Your task to perform on an android device: Open Google Maps and go to "Timeline" Image 0: 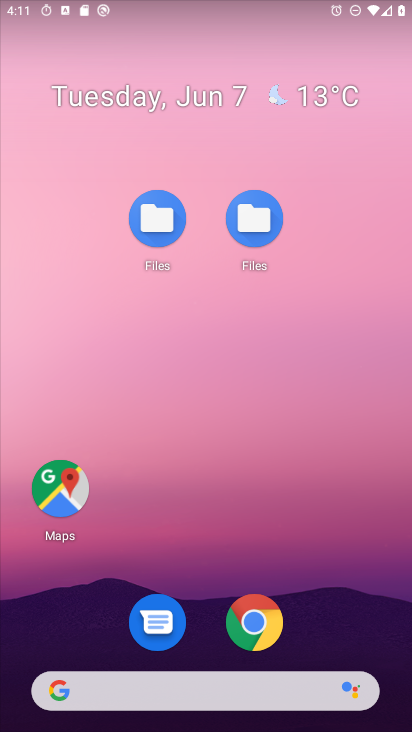
Step 0: click (47, 496)
Your task to perform on an android device: Open Google Maps and go to "Timeline" Image 1: 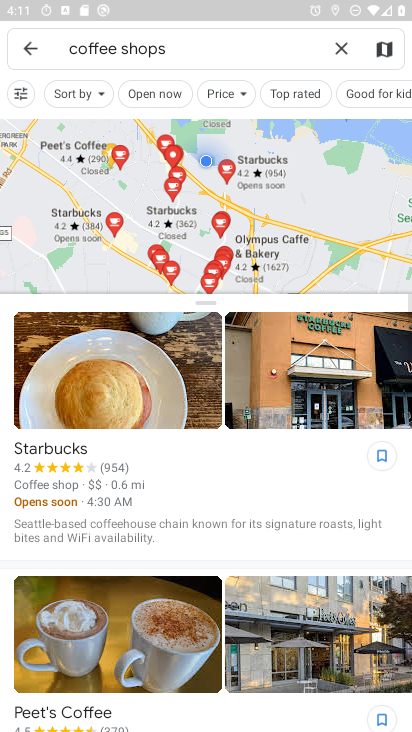
Step 1: click (16, 43)
Your task to perform on an android device: Open Google Maps and go to "Timeline" Image 2: 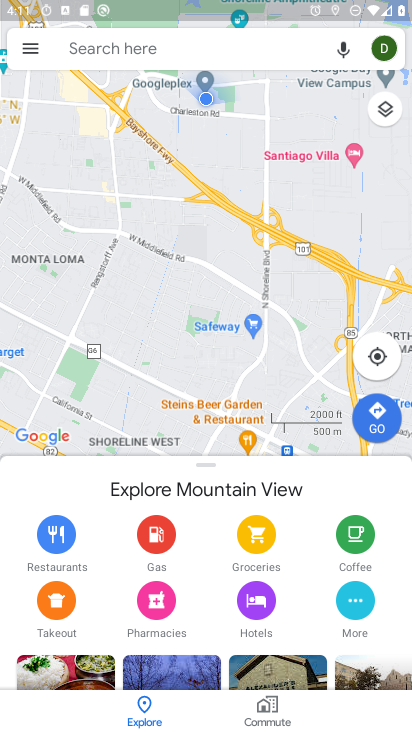
Step 2: click (29, 42)
Your task to perform on an android device: Open Google Maps and go to "Timeline" Image 3: 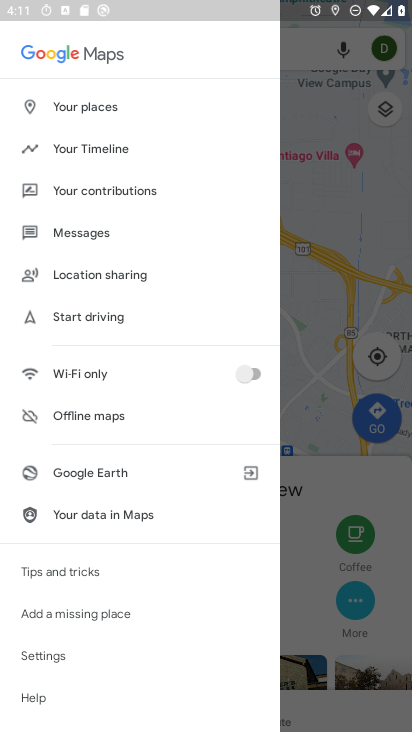
Step 3: click (42, 142)
Your task to perform on an android device: Open Google Maps and go to "Timeline" Image 4: 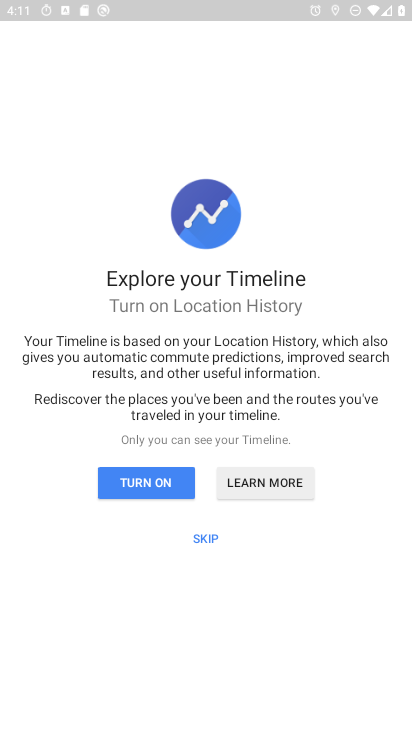
Step 4: click (202, 539)
Your task to perform on an android device: Open Google Maps and go to "Timeline" Image 5: 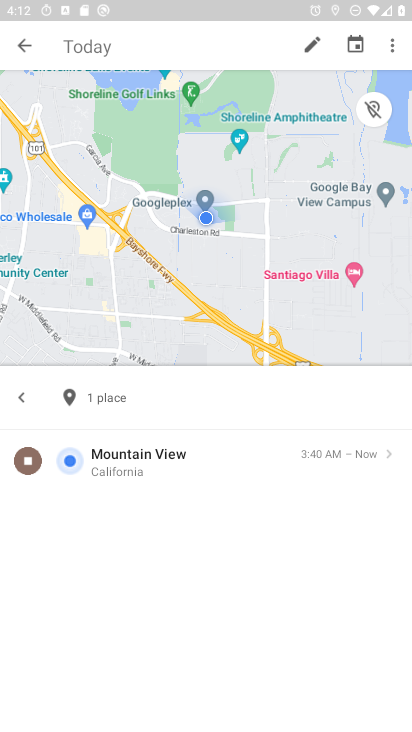
Step 5: task complete